Your task to perform on an android device: Open display settings Image 0: 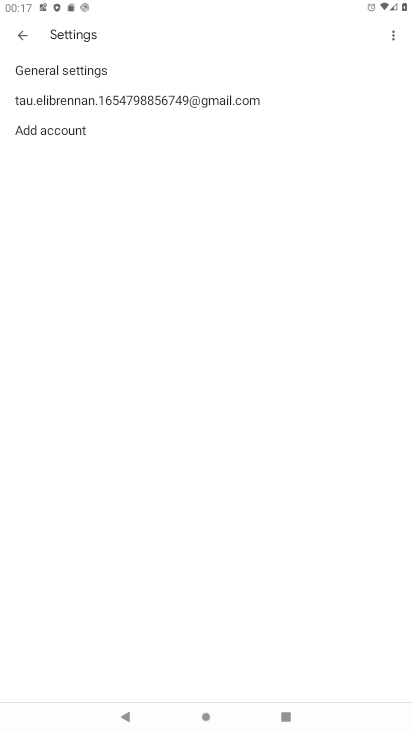
Step 0: press home button
Your task to perform on an android device: Open display settings Image 1: 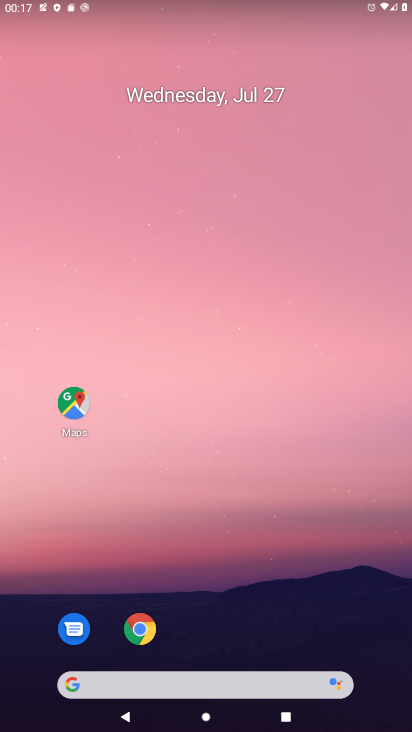
Step 1: drag from (246, 714) to (244, 262)
Your task to perform on an android device: Open display settings Image 2: 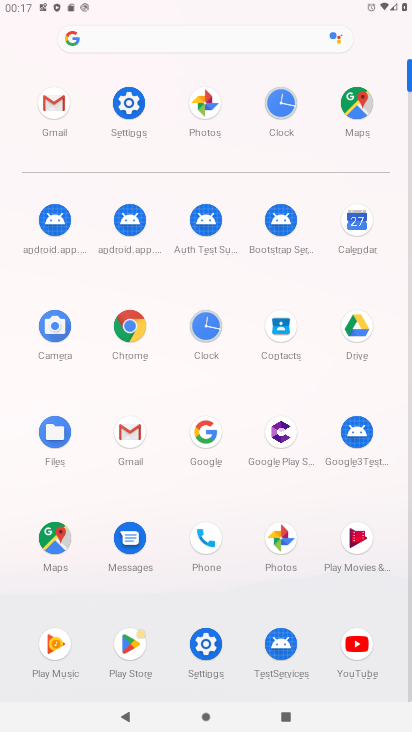
Step 2: click (138, 98)
Your task to perform on an android device: Open display settings Image 3: 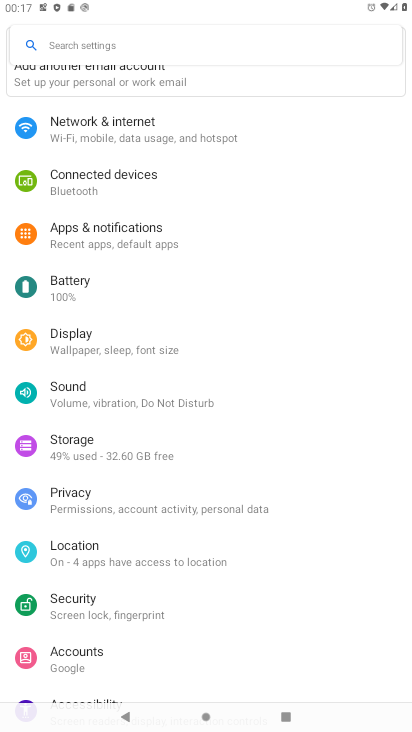
Step 3: click (65, 338)
Your task to perform on an android device: Open display settings Image 4: 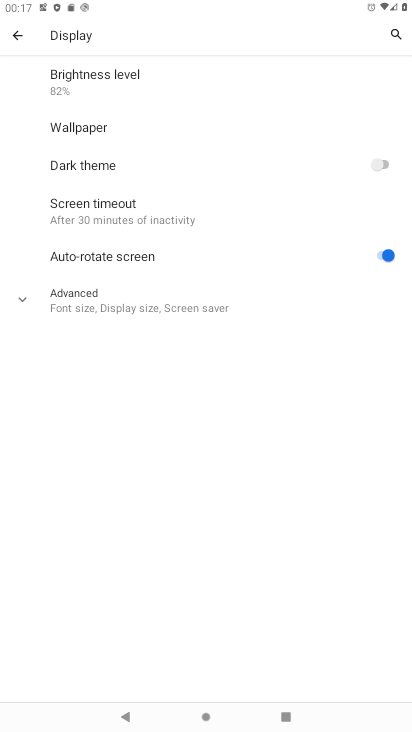
Step 4: task complete